Your task to perform on an android device: toggle data saver in the chrome app Image 0: 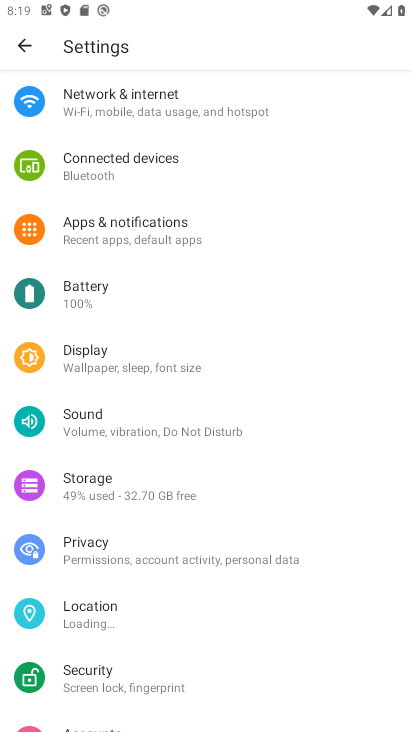
Step 0: press home button
Your task to perform on an android device: toggle data saver in the chrome app Image 1: 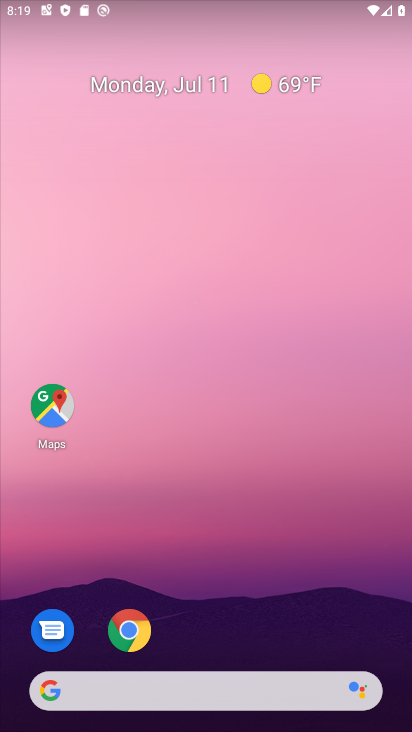
Step 1: click (143, 641)
Your task to perform on an android device: toggle data saver in the chrome app Image 2: 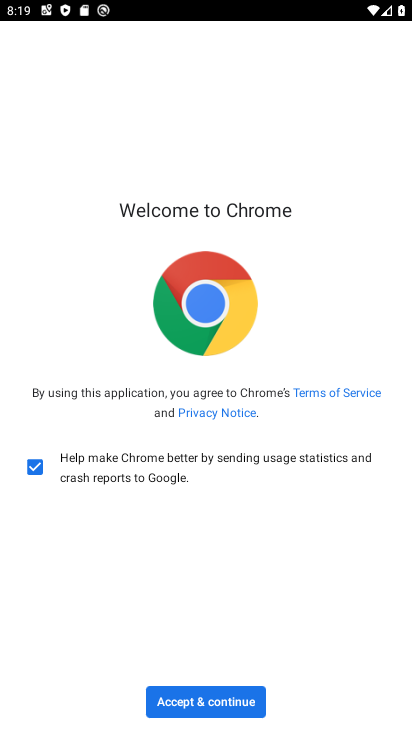
Step 2: click (190, 690)
Your task to perform on an android device: toggle data saver in the chrome app Image 3: 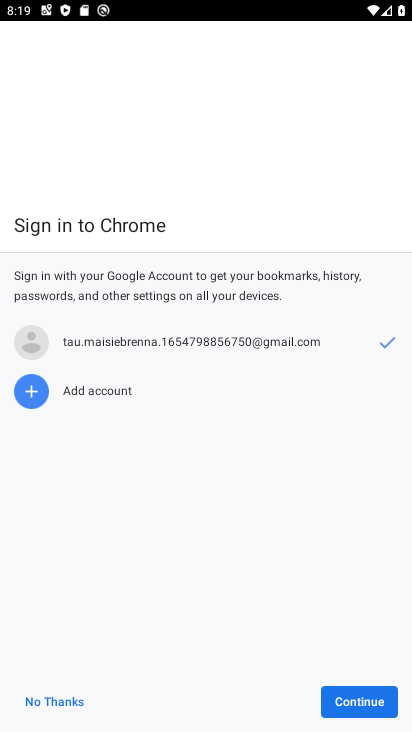
Step 3: click (353, 703)
Your task to perform on an android device: toggle data saver in the chrome app Image 4: 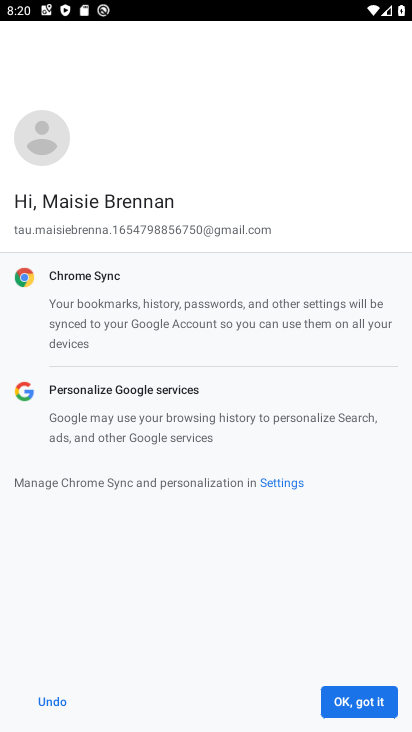
Step 4: click (353, 703)
Your task to perform on an android device: toggle data saver in the chrome app Image 5: 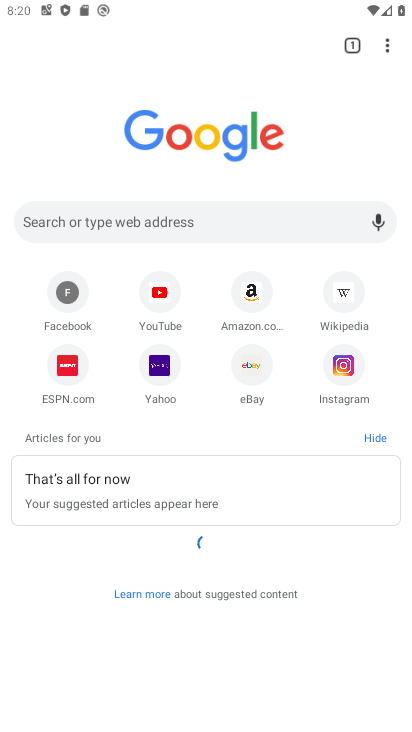
Step 5: drag from (397, 49) to (253, 387)
Your task to perform on an android device: toggle data saver in the chrome app Image 6: 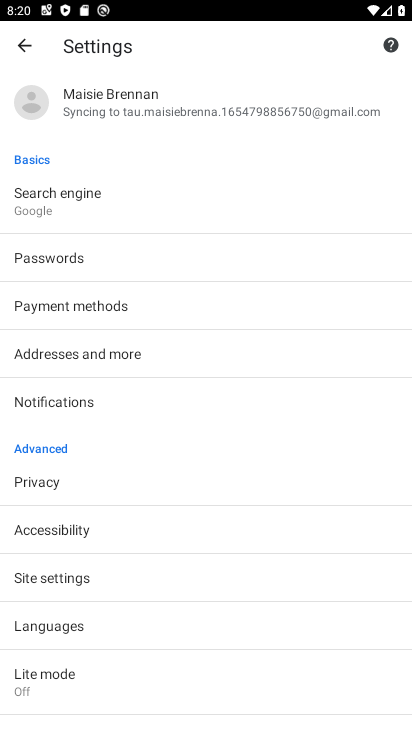
Step 6: click (80, 676)
Your task to perform on an android device: toggle data saver in the chrome app Image 7: 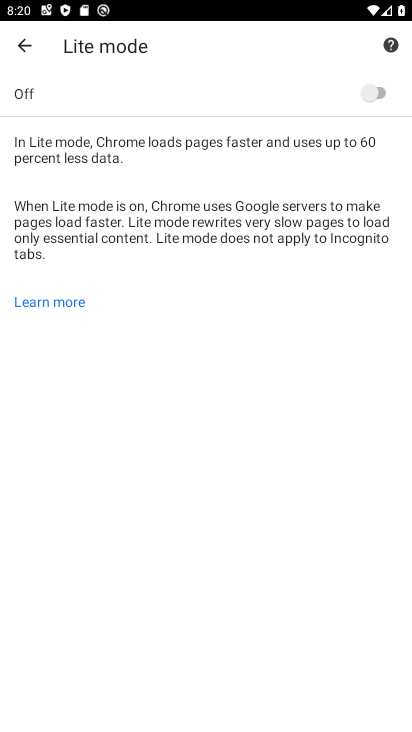
Step 7: click (376, 94)
Your task to perform on an android device: toggle data saver in the chrome app Image 8: 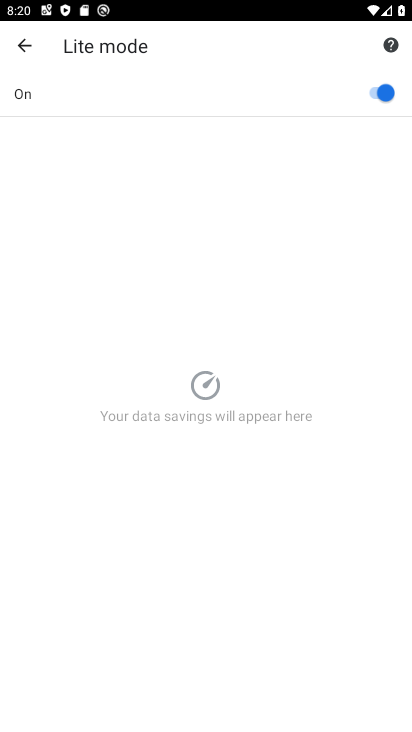
Step 8: task complete